Your task to perform on an android device: Open Chrome and go to settings Image 0: 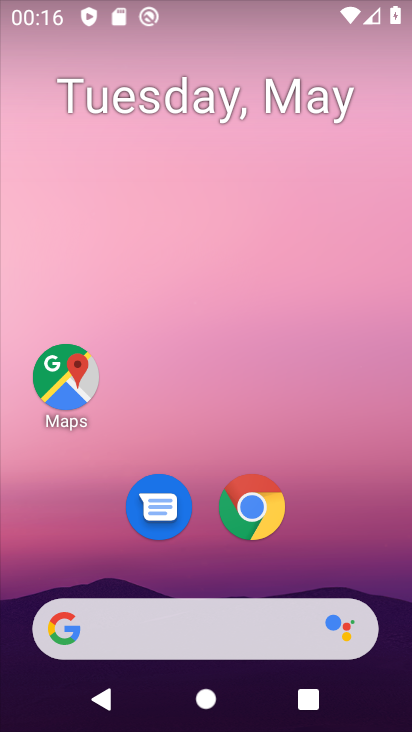
Step 0: click (251, 520)
Your task to perform on an android device: Open Chrome and go to settings Image 1: 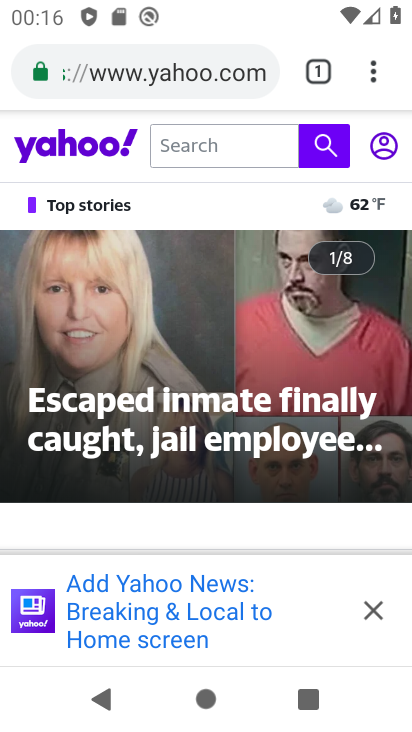
Step 1: click (378, 80)
Your task to perform on an android device: Open Chrome and go to settings Image 2: 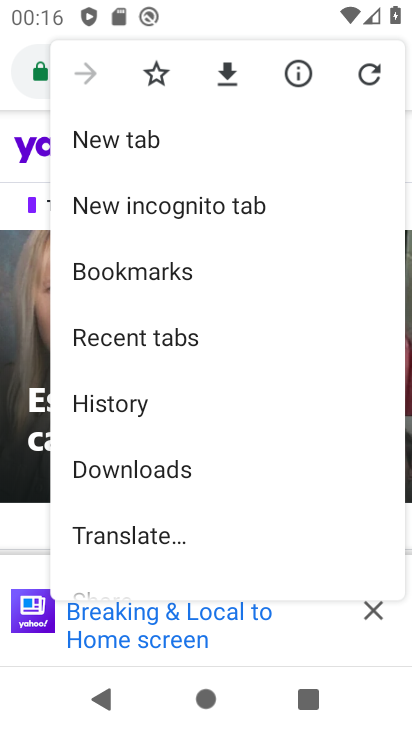
Step 2: drag from (211, 543) to (253, 253)
Your task to perform on an android device: Open Chrome and go to settings Image 3: 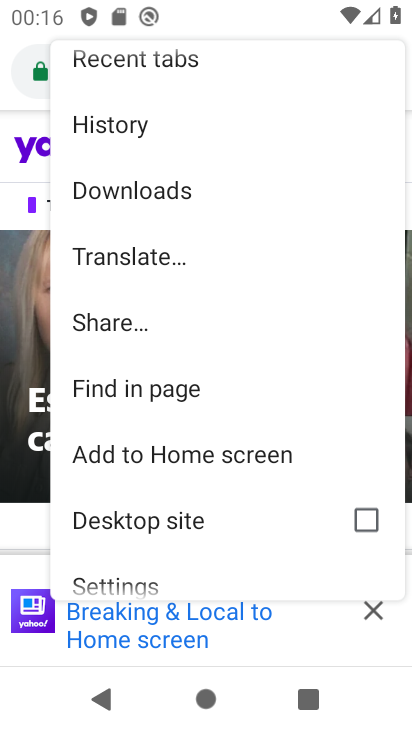
Step 3: click (124, 580)
Your task to perform on an android device: Open Chrome and go to settings Image 4: 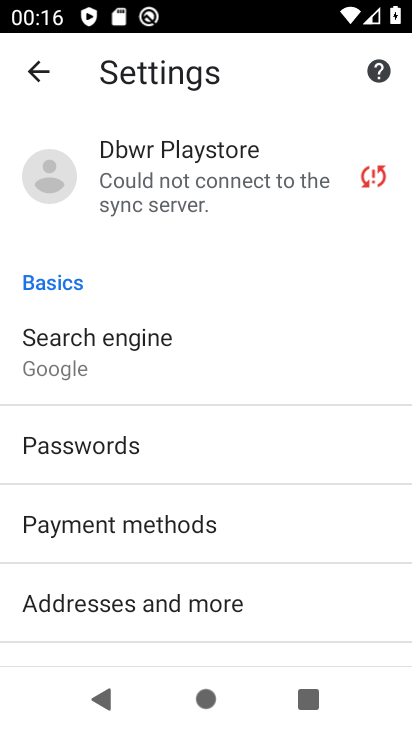
Step 4: task complete